Your task to perform on an android device: Open Android settings Image 0: 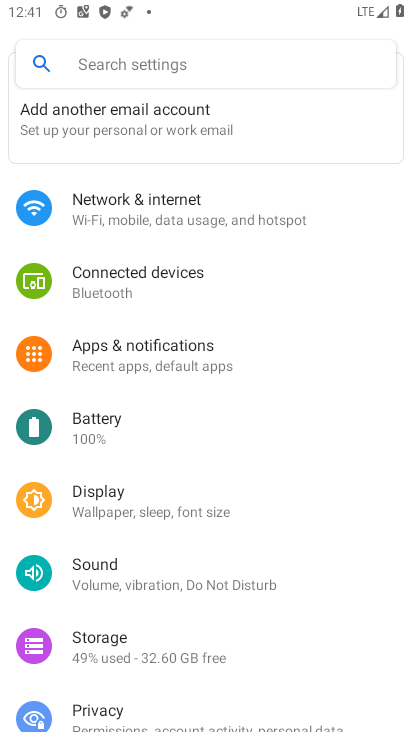
Step 0: task complete